Your task to perform on an android device: Show the shopping cart on costco. Image 0: 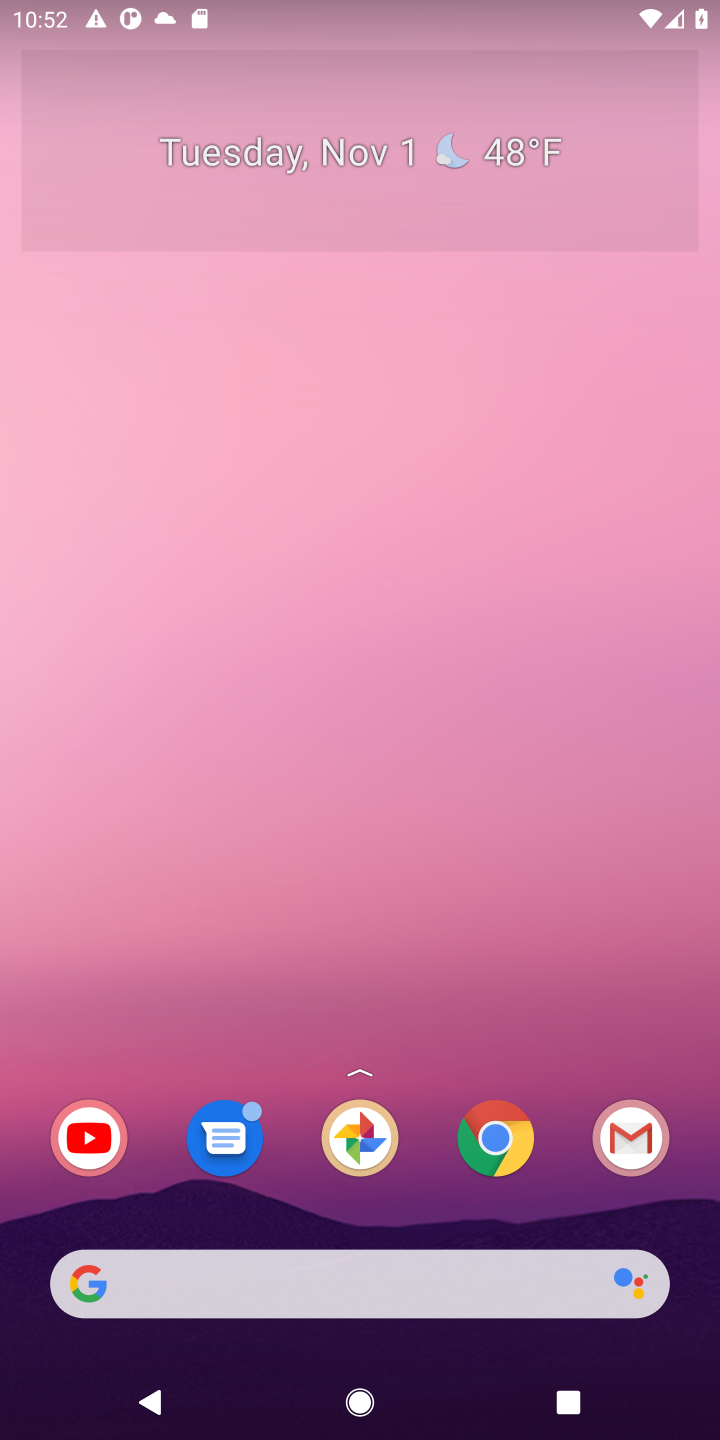
Step 0: press home button
Your task to perform on an android device: Show the shopping cart on costco. Image 1: 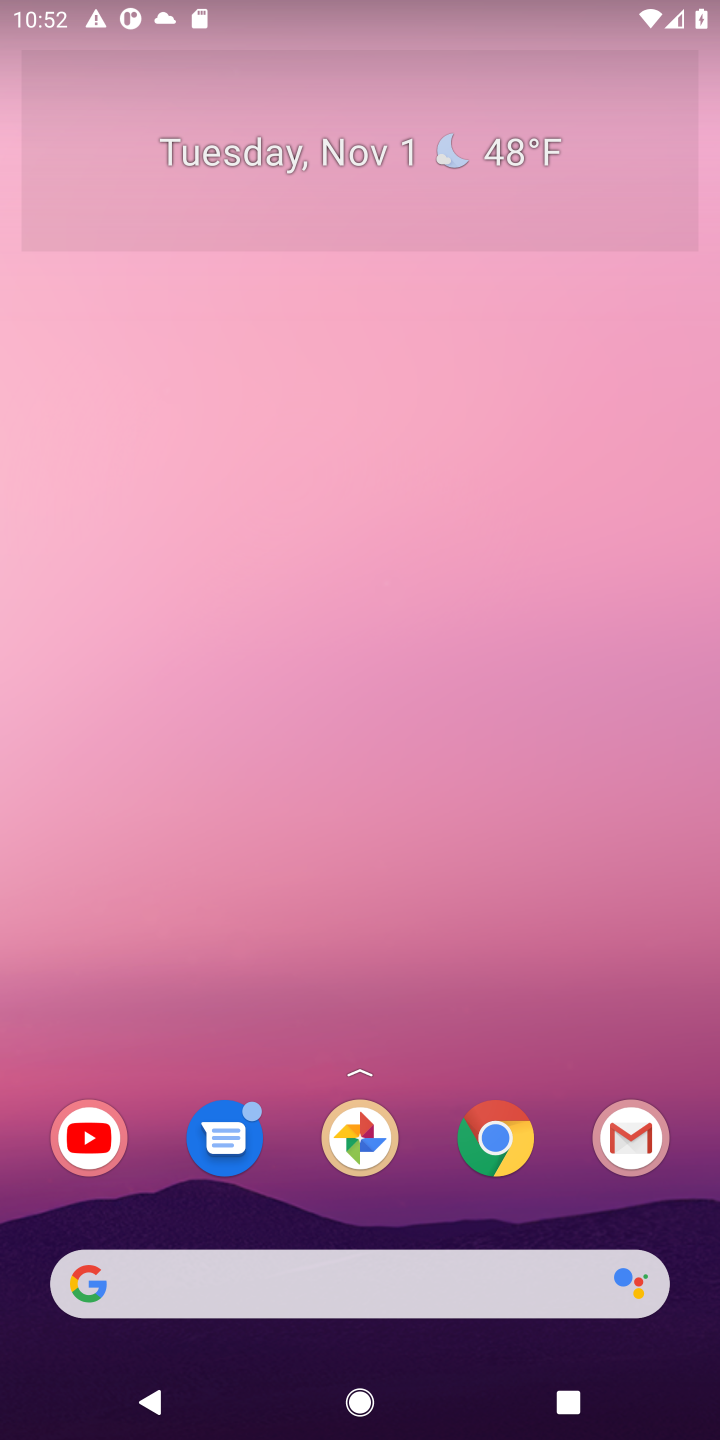
Step 1: click (489, 1134)
Your task to perform on an android device: Show the shopping cart on costco. Image 2: 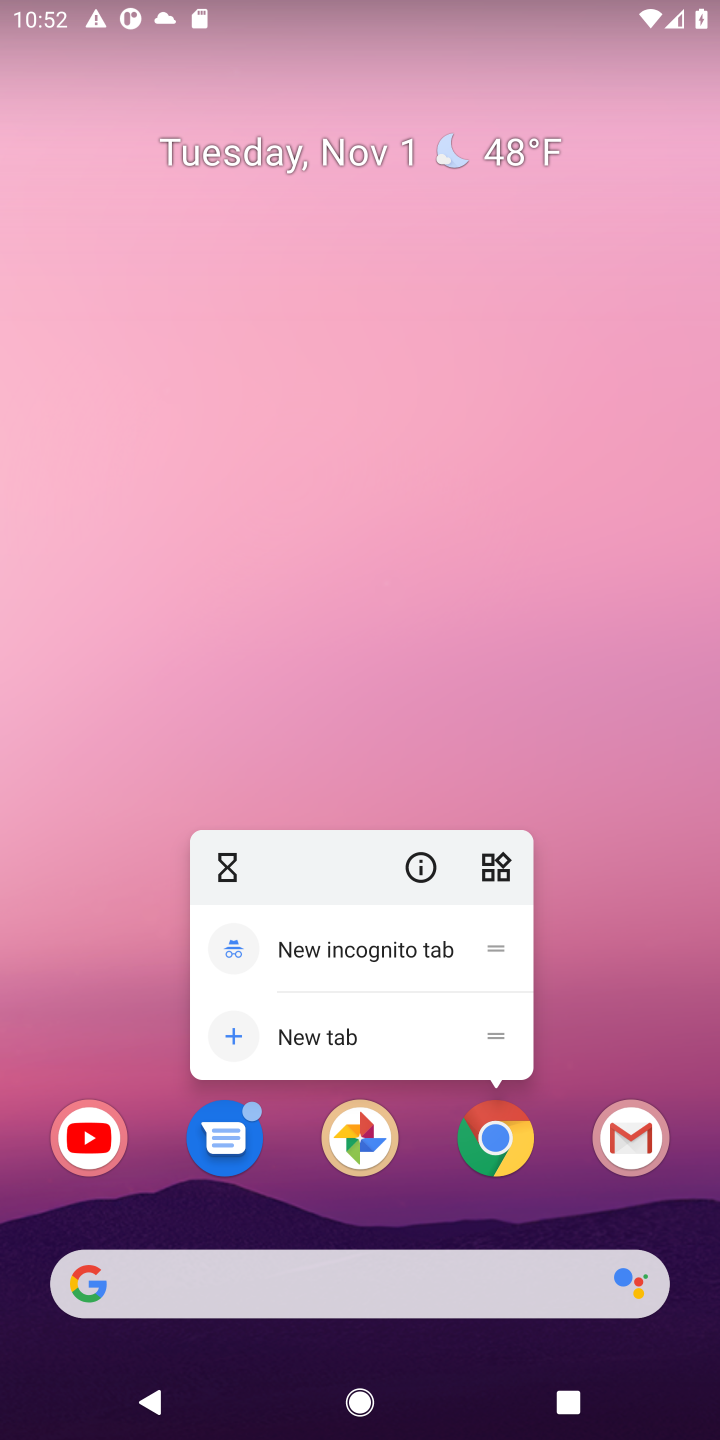
Step 2: click (493, 1132)
Your task to perform on an android device: Show the shopping cart on costco. Image 3: 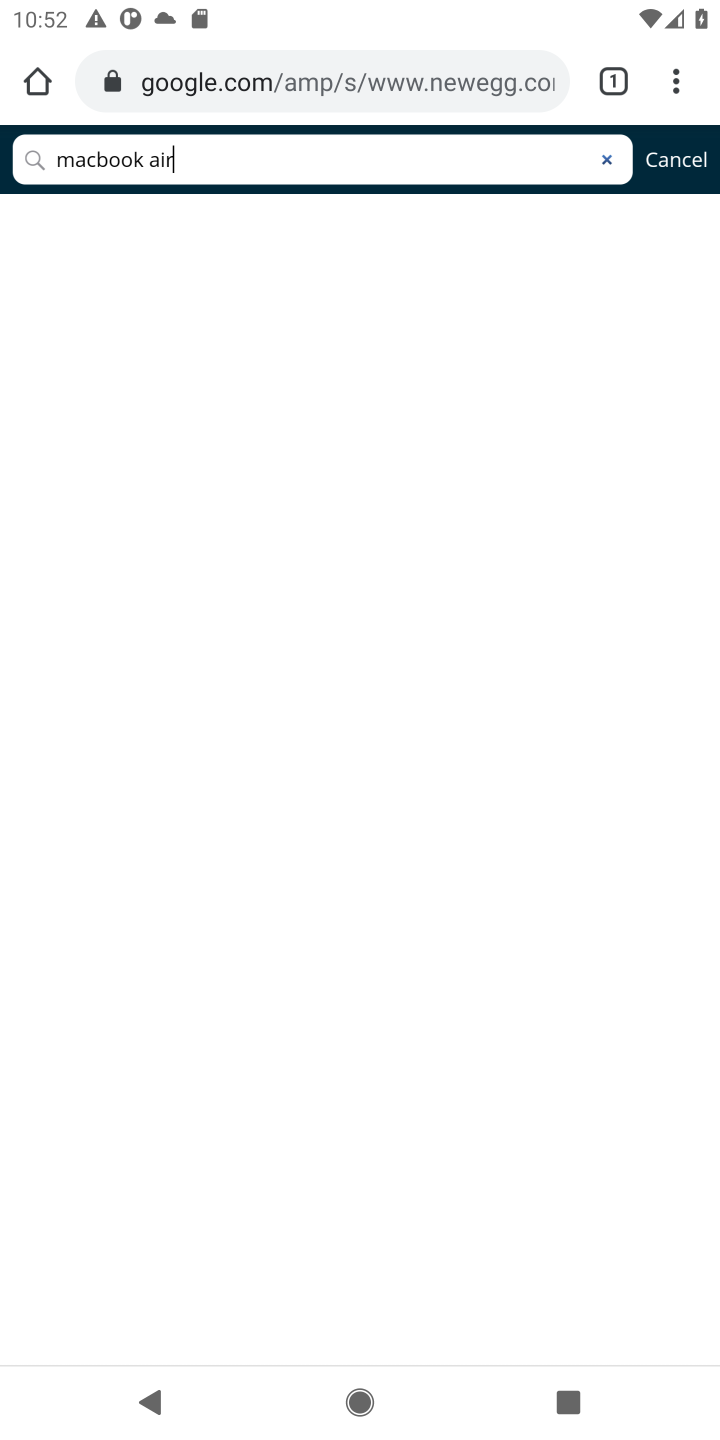
Step 3: click (602, 159)
Your task to perform on an android device: Show the shopping cart on costco. Image 4: 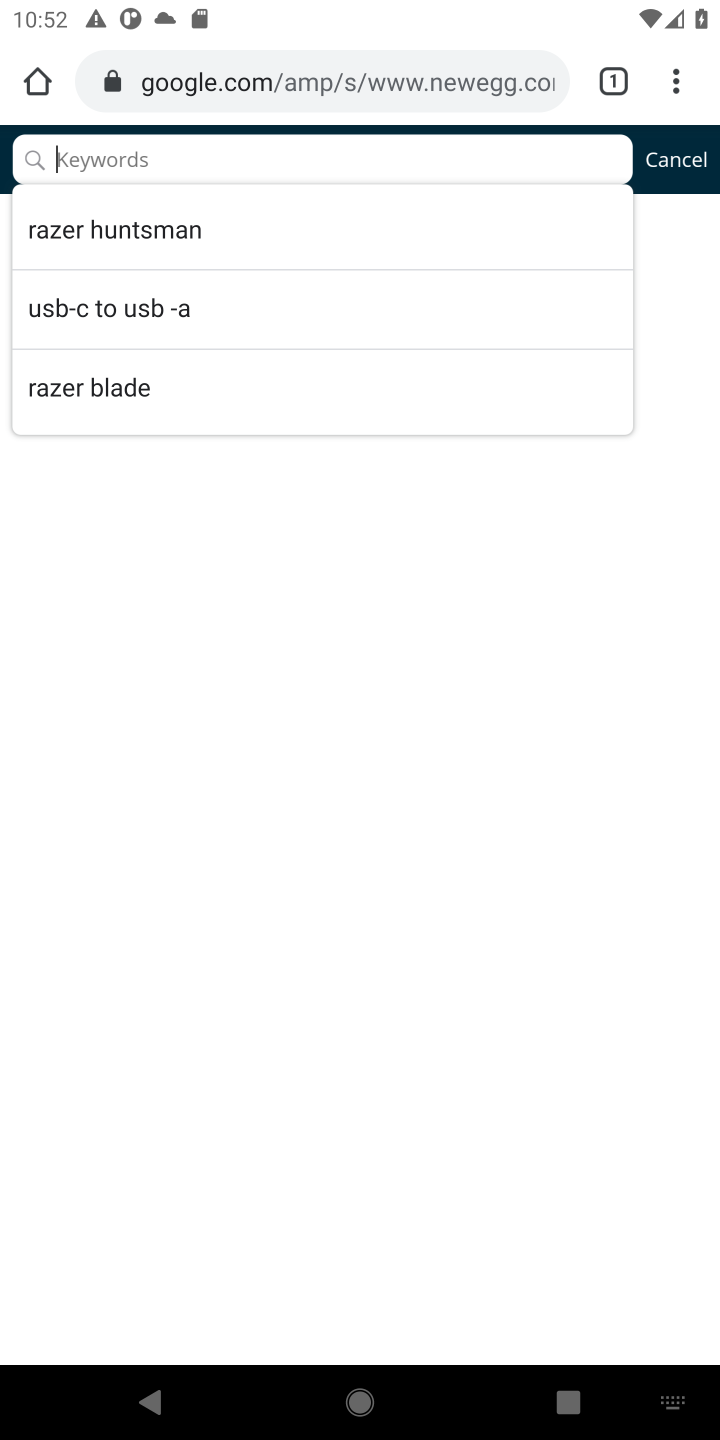
Step 4: type "costco"
Your task to perform on an android device: Show the shopping cart on costco. Image 5: 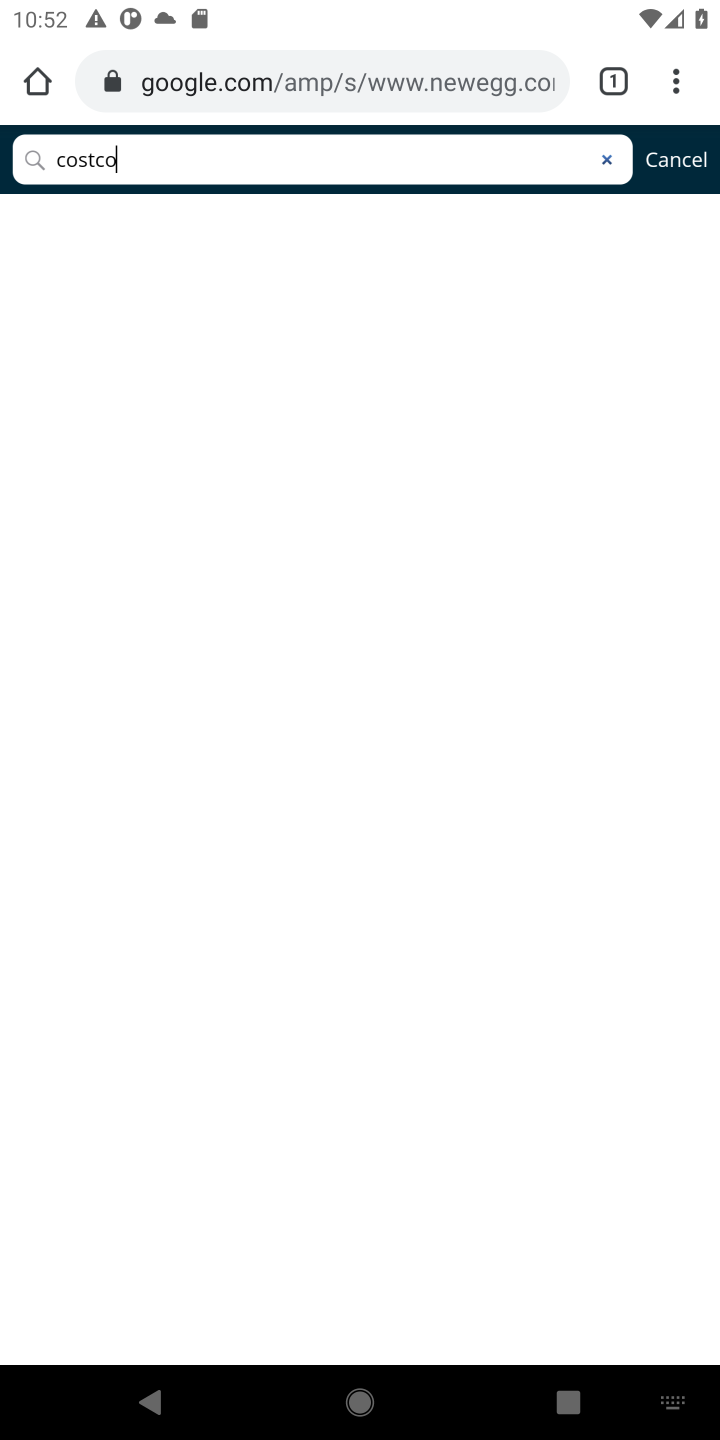
Step 5: click (606, 73)
Your task to perform on an android device: Show the shopping cart on costco. Image 6: 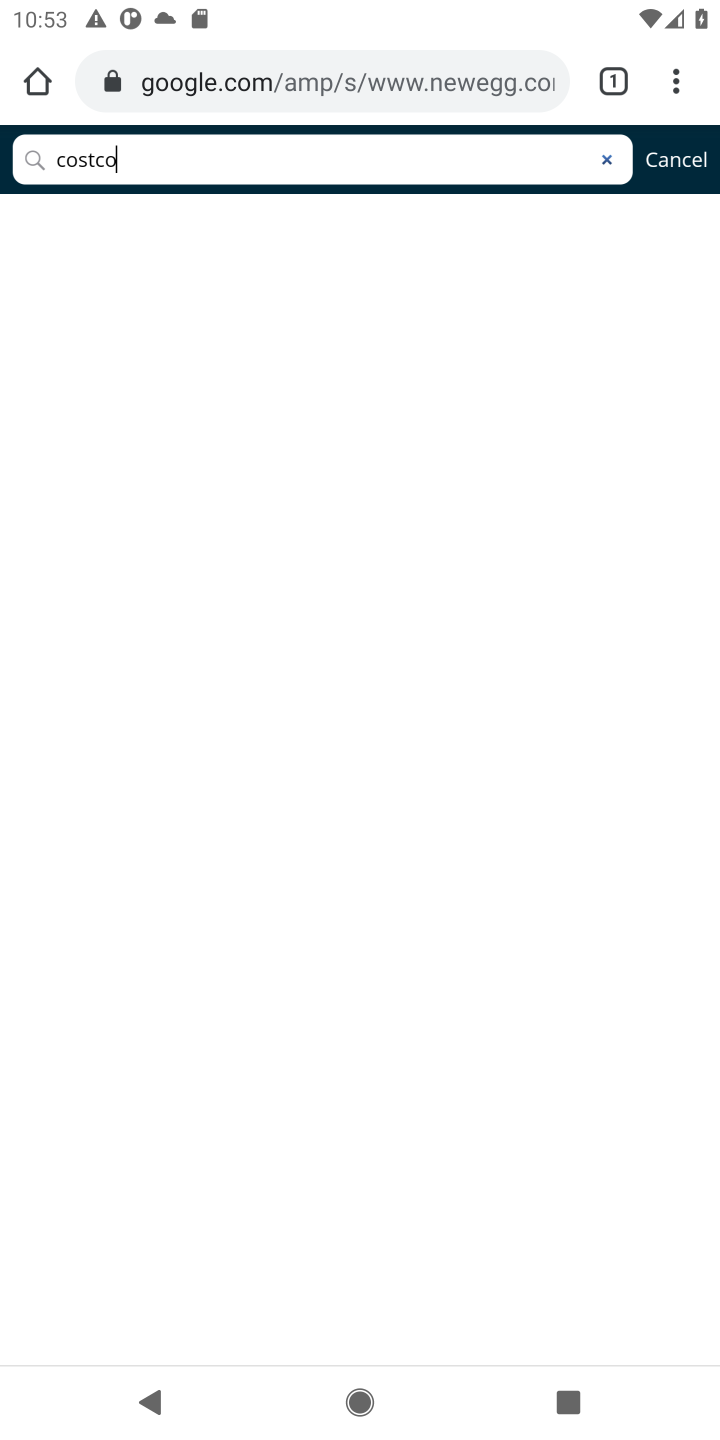
Step 6: click (263, 73)
Your task to perform on an android device: Show the shopping cart on costco. Image 7: 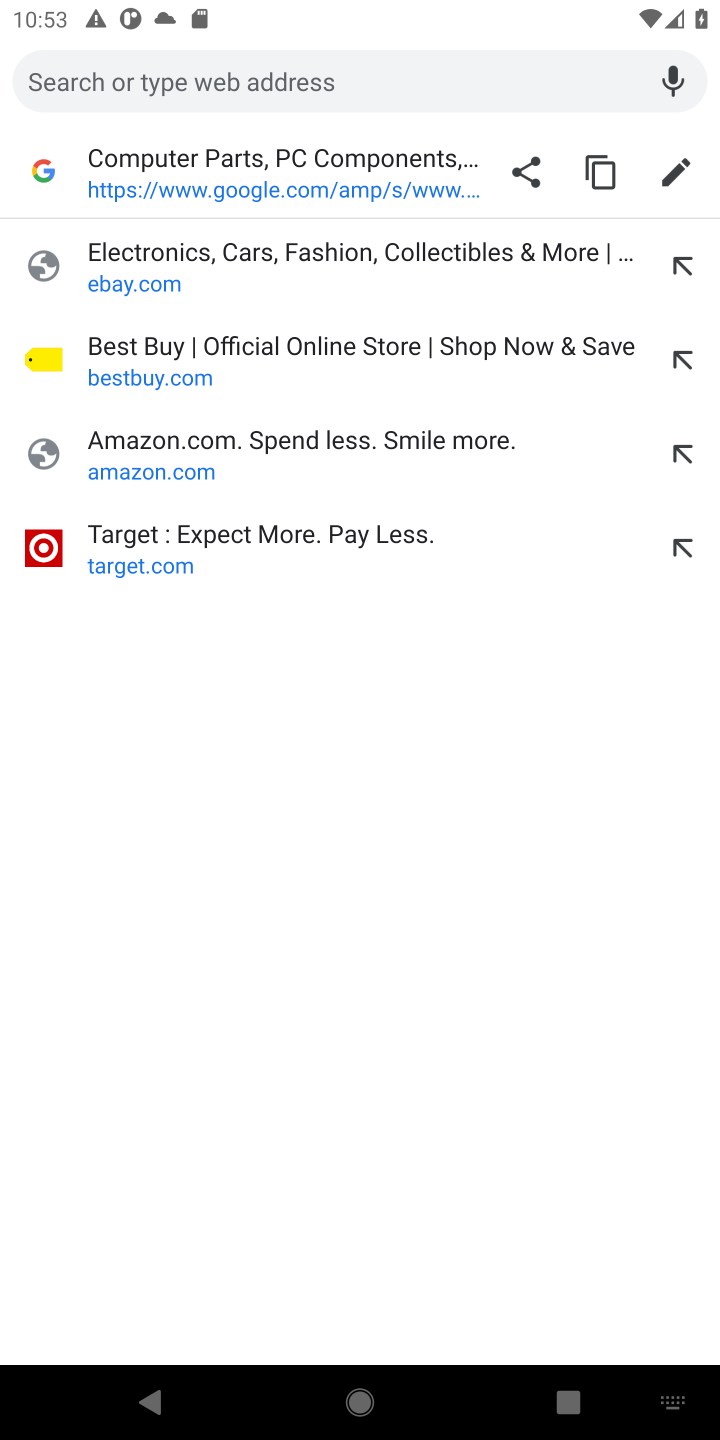
Step 7: type "costco"
Your task to perform on an android device: Show the shopping cart on costco. Image 8: 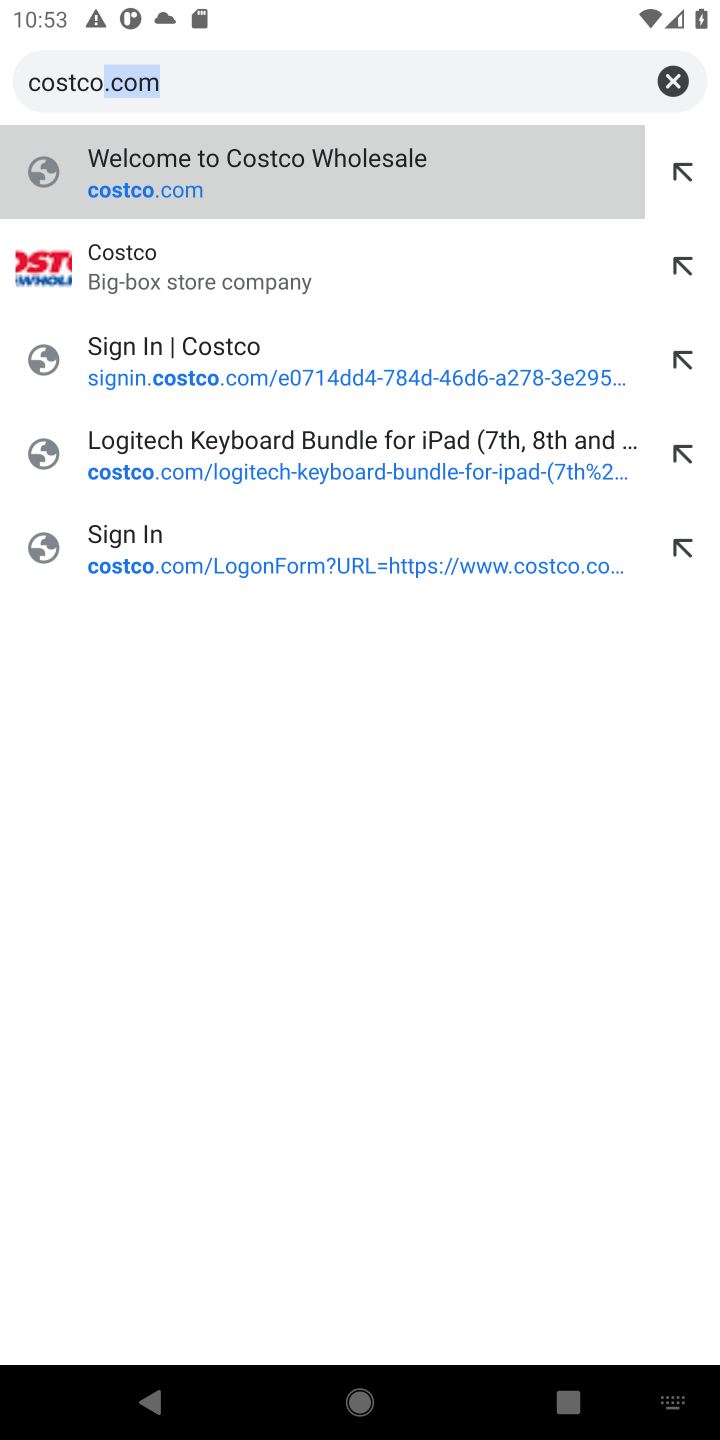
Step 8: click (230, 182)
Your task to perform on an android device: Show the shopping cart on costco. Image 9: 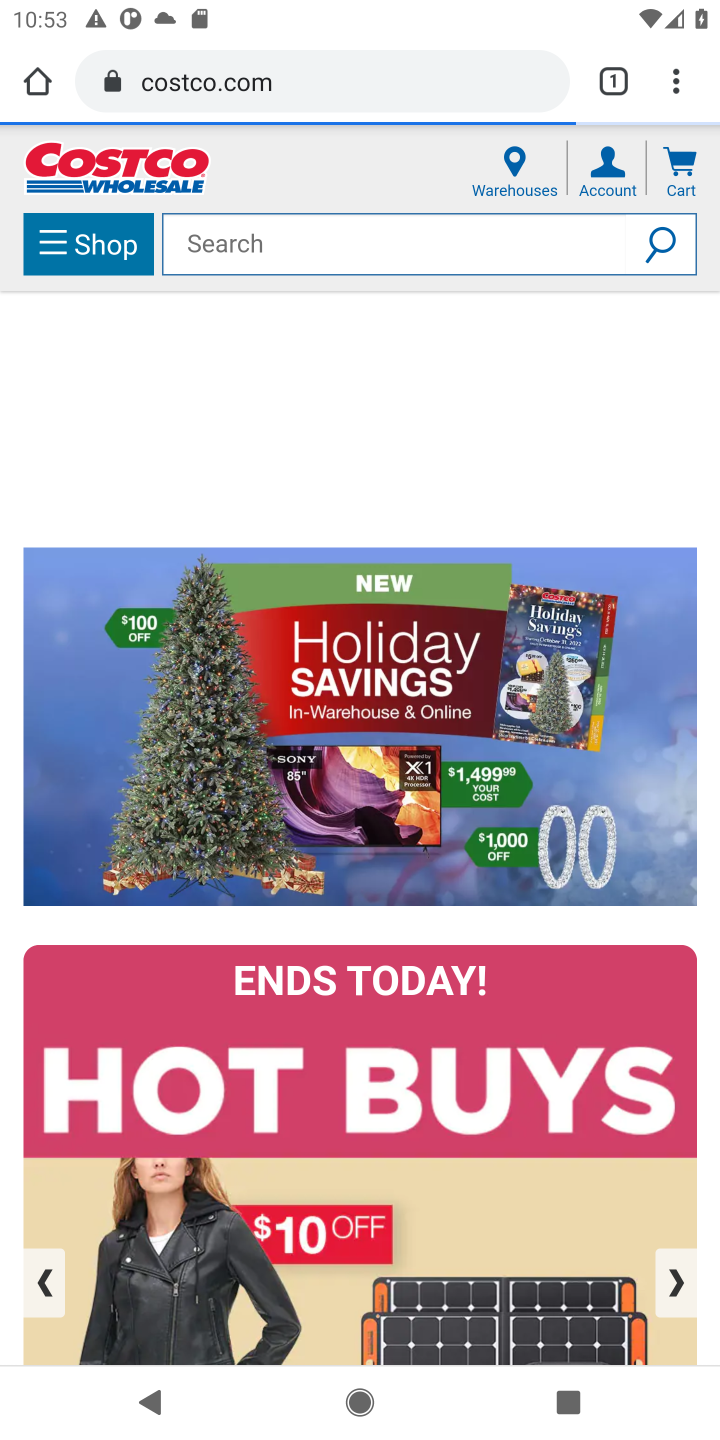
Step 9: click (348, 236)
Your task to perform on an android device: Show the shopping cart on costco. Image 10: 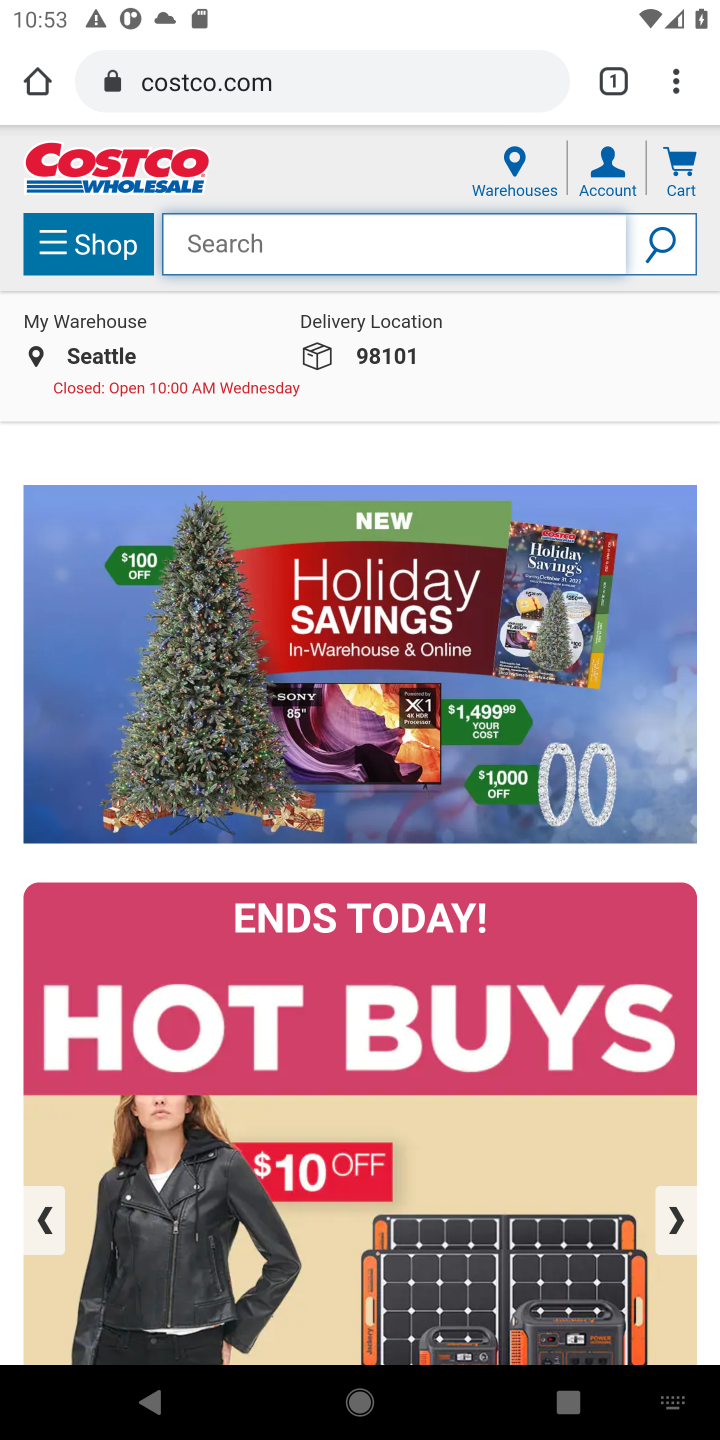
Step 10: click (680, 161)
Your task to perform on an android device: Show the shopping cart on costco. Image 11: 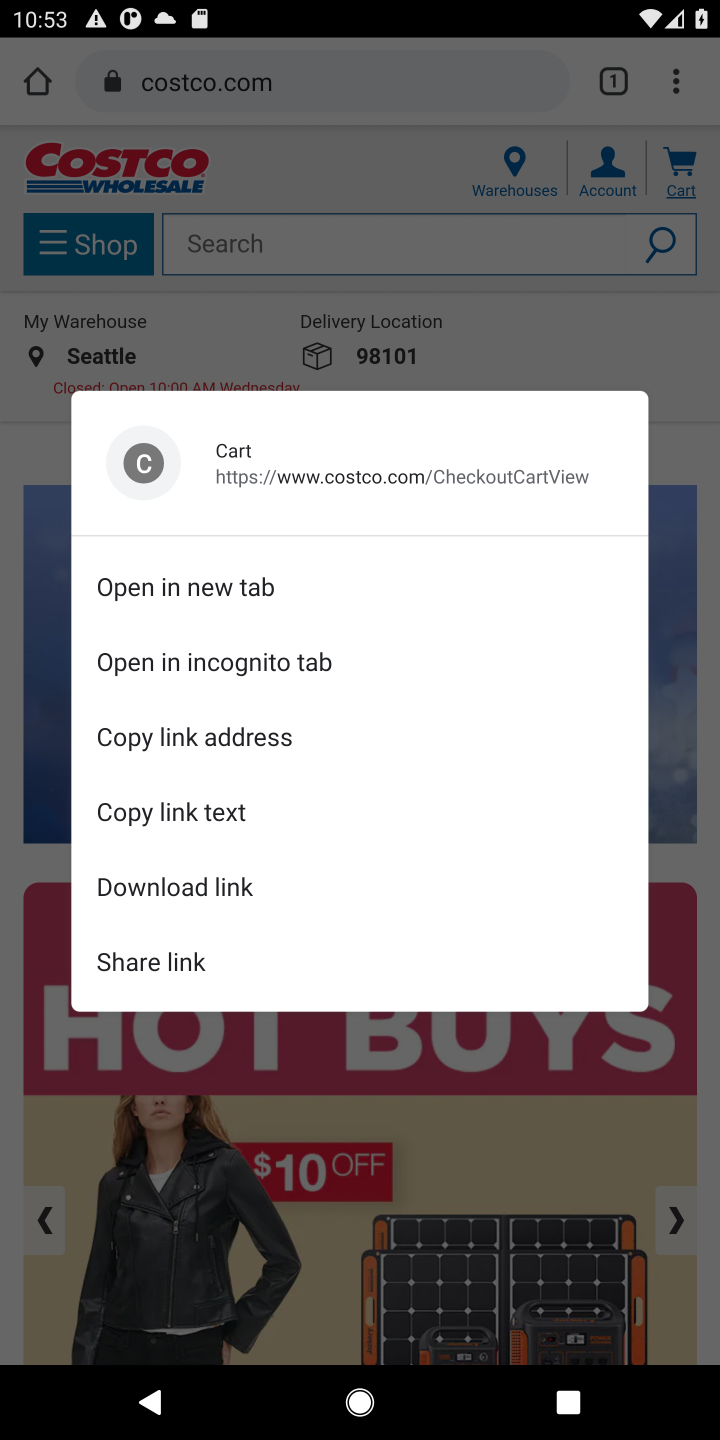
Step 11: click (396, 288)
Your task to perform on an android device: Show the shopping cart on costco. Image 12: 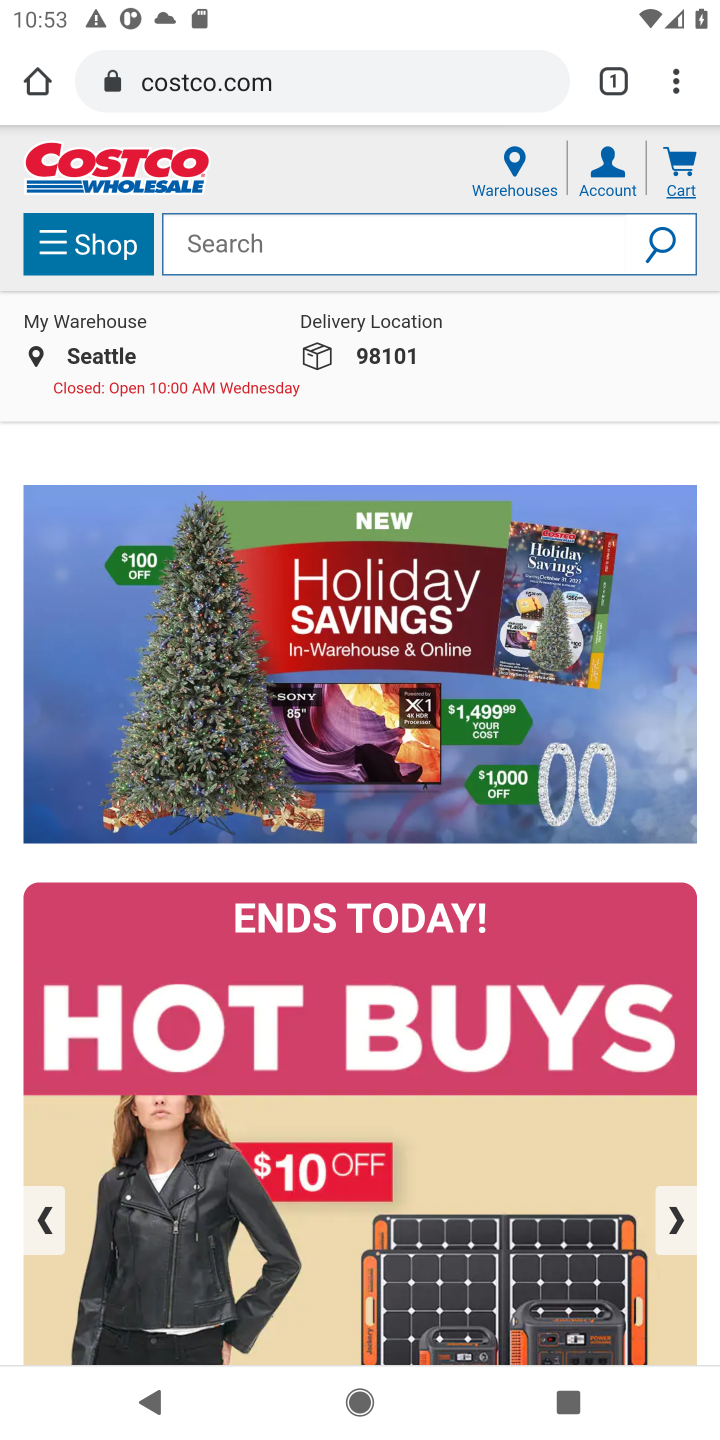
Step 12: click (680, 171)
Your task to perform on an android device: Show the shopping cart on costco. Image 13: 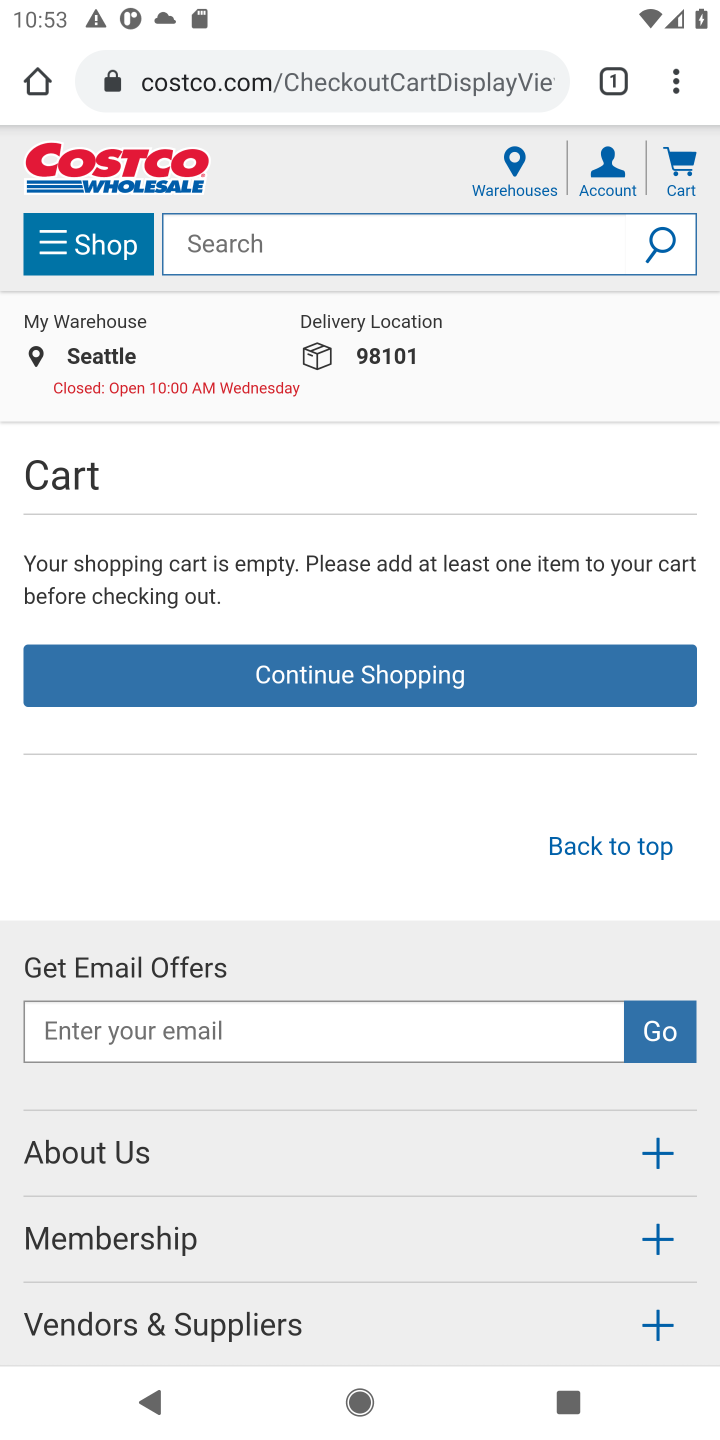
Step 13: task complete